Your task to perform on an android device: turn off sleep mode Image 0: 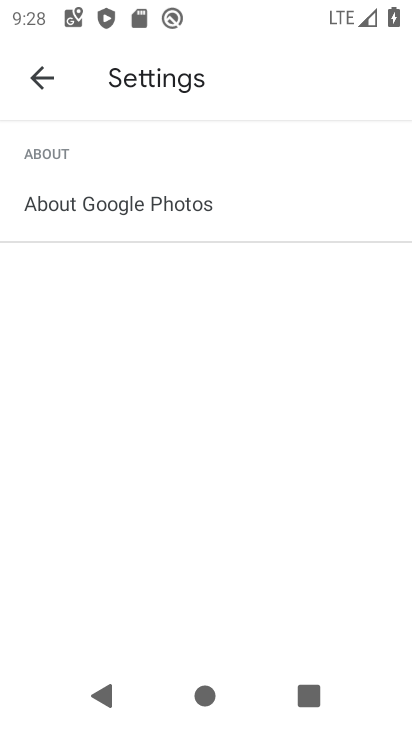
Step 0: press home button
Your task to perform on an android device: turn off sleep mode Image 1: 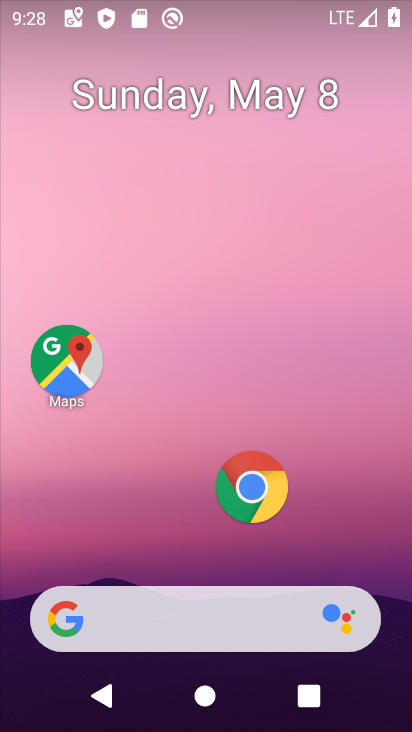
Step 1: drag from (168, 483) to (208, 97)
Your task to perform on an android device: turn off sleep mode Image 2: 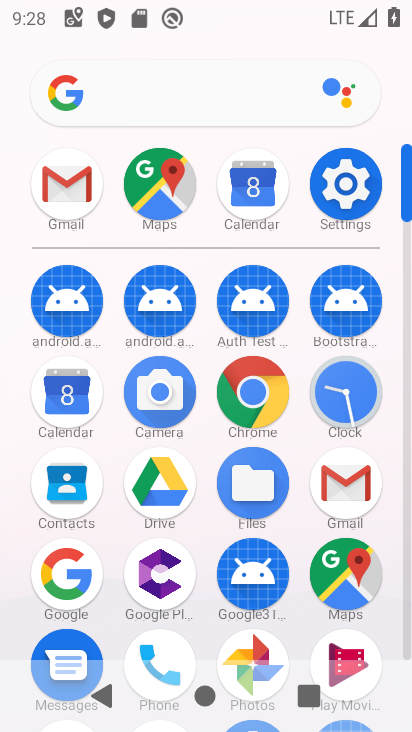
Step 2: click (323, 185)
Your task to perform on an android device: turn off sleep mode Image 3: 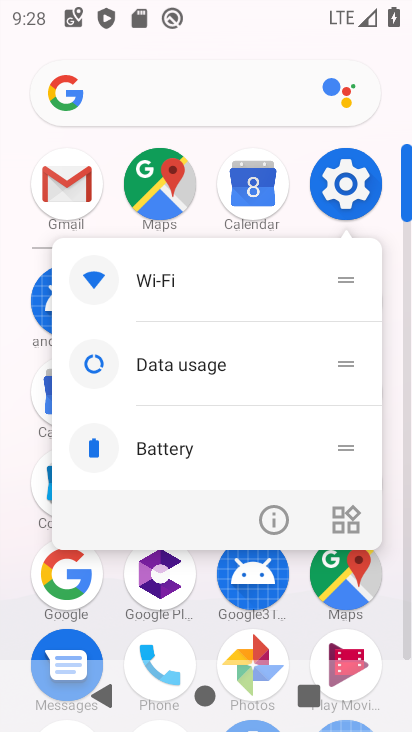
Step 3: click (344, 175)
Your task to perform on an android device: turn off sleep mode Image 4: 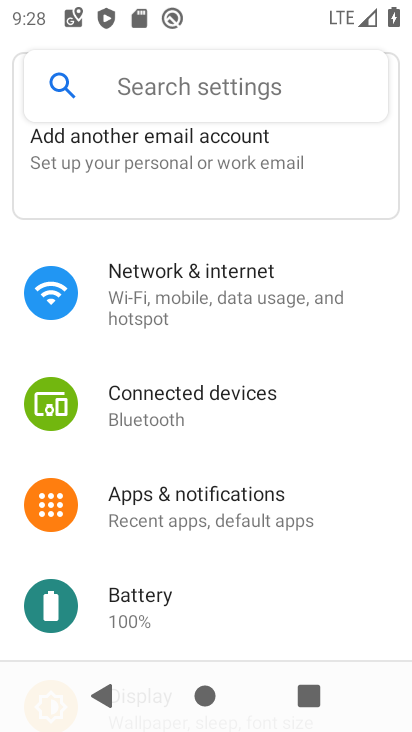
Step 4: drag from (219, 550) to (295, 169)
Your task to perform on an android device: turn off sleep mode Image 5: 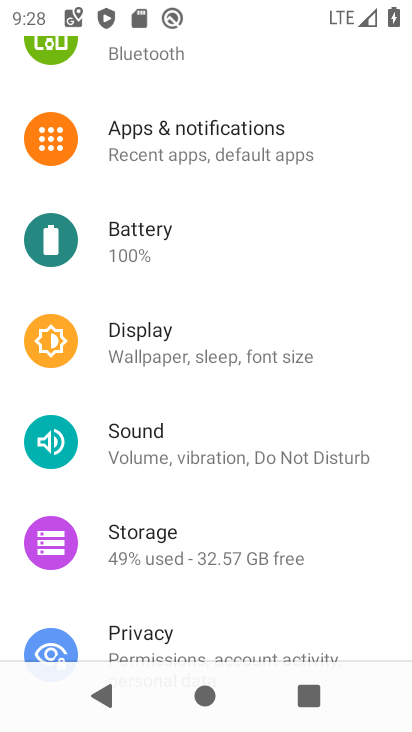
Step 5: click (221, 346)
Your task to perform on an android device: turn off sleep mode Image 6: 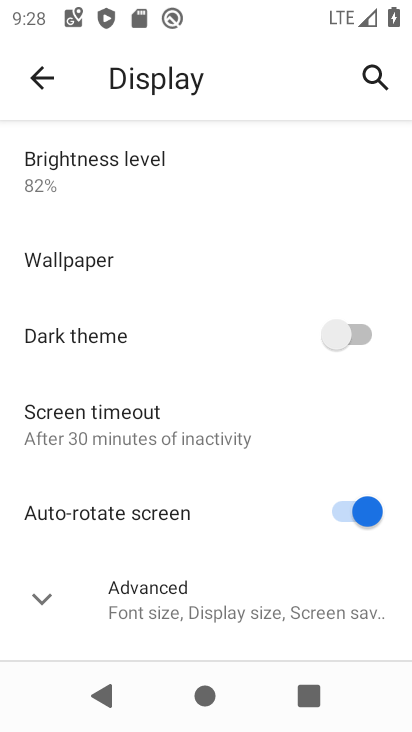
Step 6: click (41, 589)
Your task to perform on an android device: turn off sleep mode Image 7: 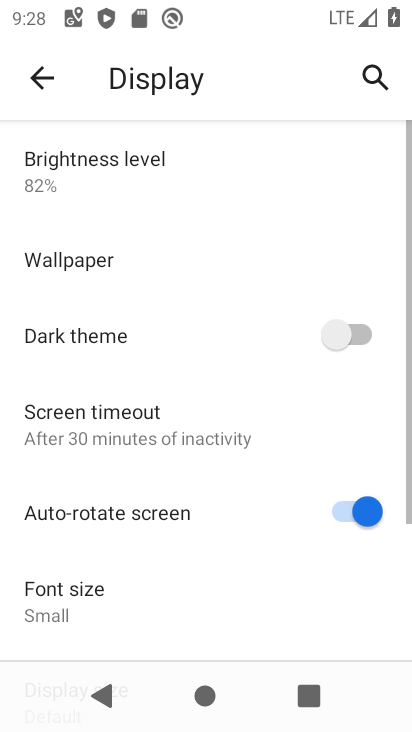
Step 7: task complete